Your task to perform on an android device: toggle javascript in the chrome app Image 0: 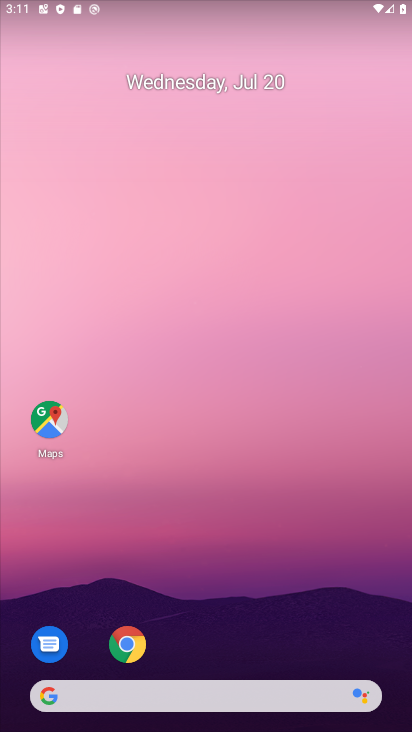
Step 0: click (117, 646)
Your task to perform on an android device: toggle javascript in the chrome app Image 1: 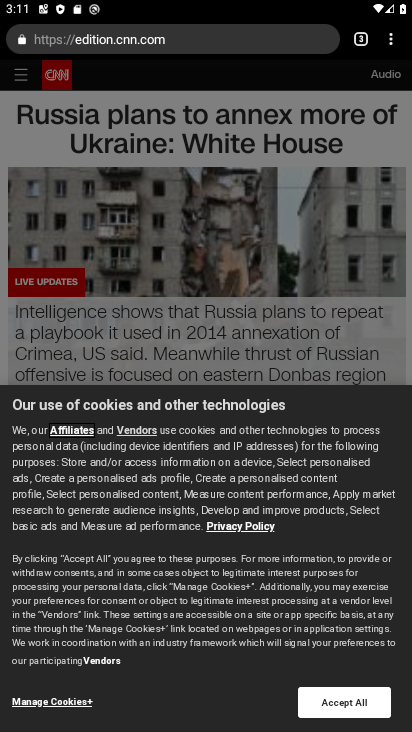
Step 1: click (392, 40)
Your task to perform on an android device: toggle javascript in the chrome app Image 2: 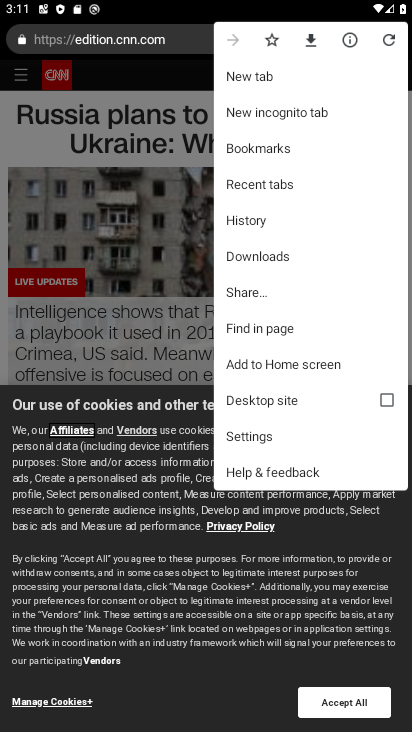
Step 2: click (258, 444)
Your task to perform on an android device: toggle javascript in the chrome app Image 3: 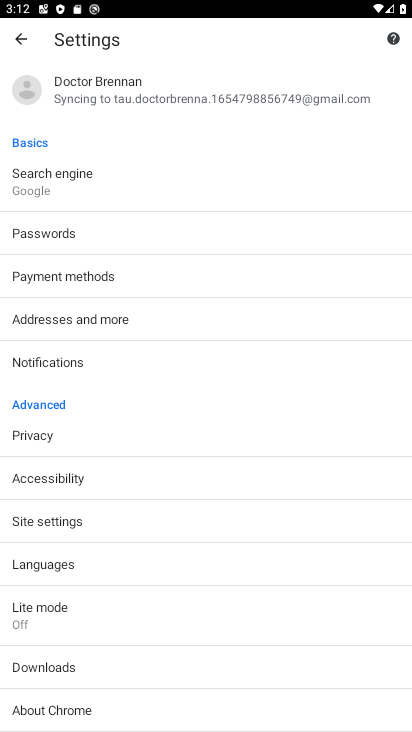
Step 3: click (48, 523)
Your task to perform on an android device: toggle javascript in the chrome app Image 4: 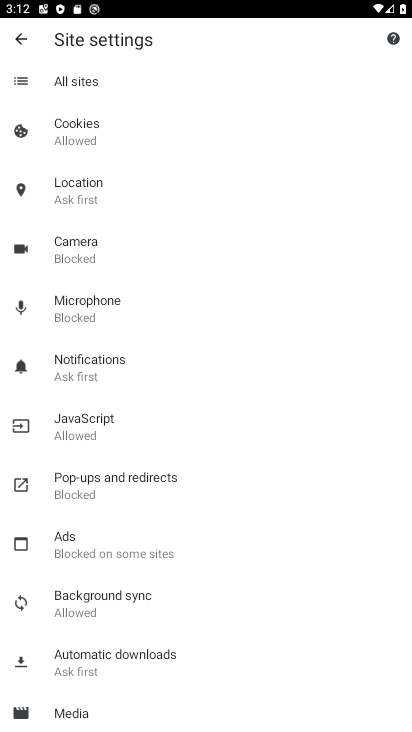
Step 4: click (106, 435)
Your task to perform on an android device: toggle javascript in the chrome app Image 5: 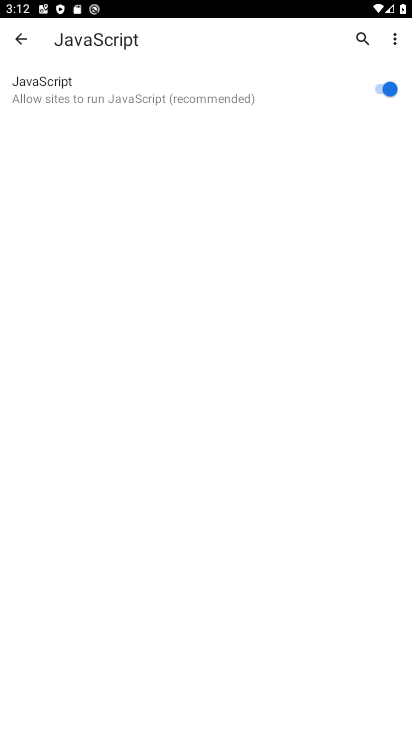
Step 5: click (380, 89)
Your task to perform on an android device: toggle javascript in the chrome app Image 6: 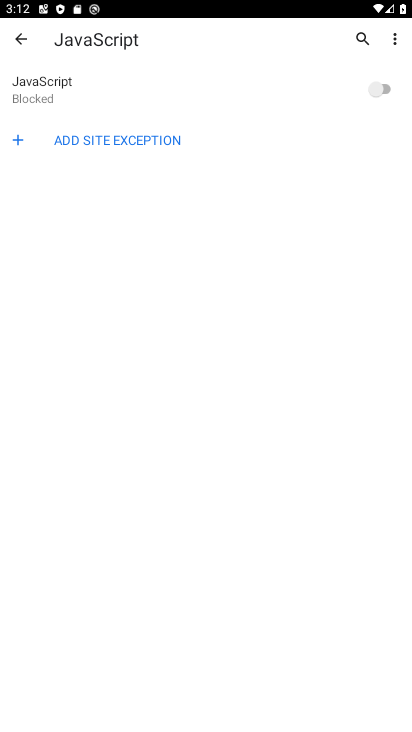
Step 6: task complete